Your task to perform on an android device: move an email to a new category in the gmail app Image 0: 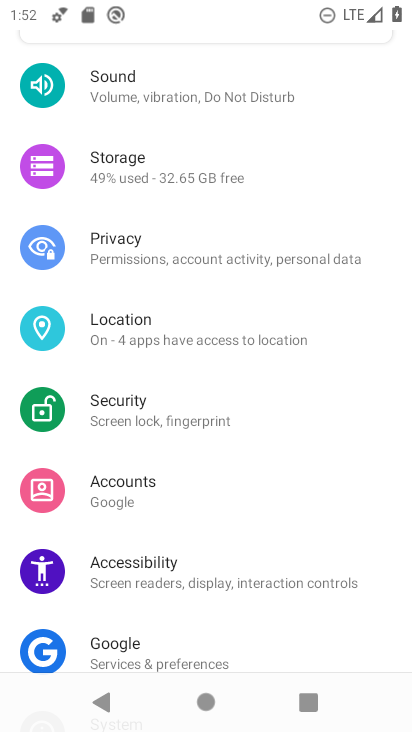
Step 0: press home button
Your task to perform on an android device: move an email to a new category in the gmail app Image 1: 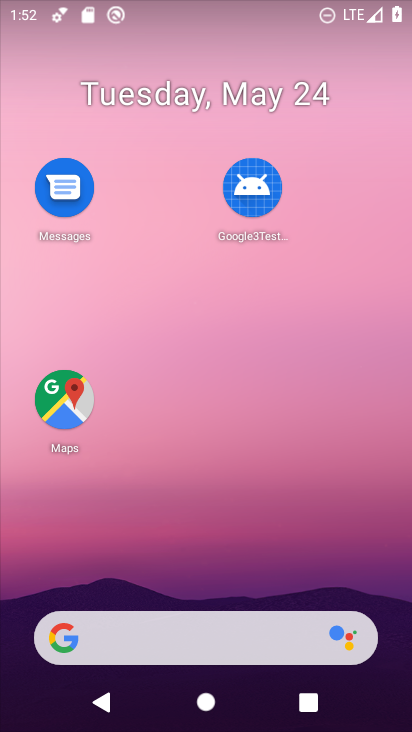
Step 1: drag from (203, 575) to (196, 1)
Your task to perform on an android device: move an email to a new category in the gmail app Image 2: 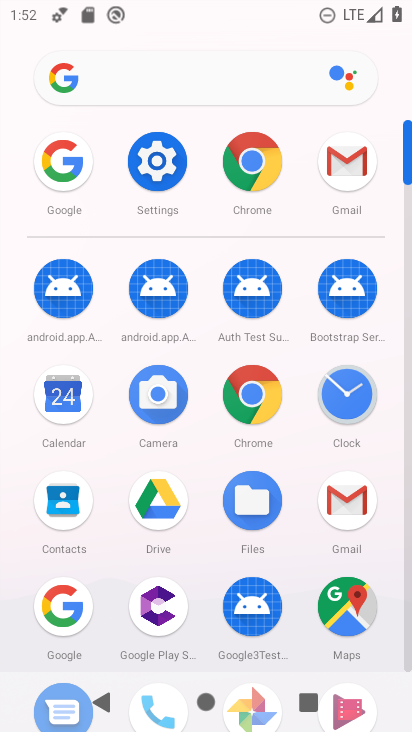
Step 2: click (335, 175)
Your task to perform on an android device: move an email to a new category in the gmail app Image 3: 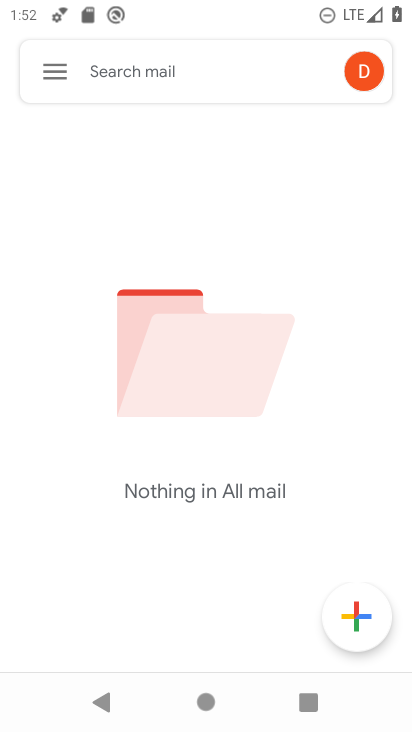
Step 3: click (52, 69)
Your task to perform on an android device: move an email to a new category in the gmail app Image 4: 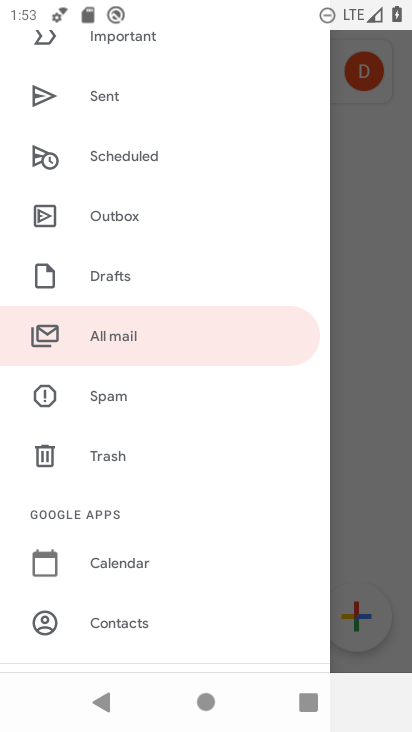
Step 4: click (121, 302)
Your task to perform on an android device: move an email to a new category in the gmail app Image 5: 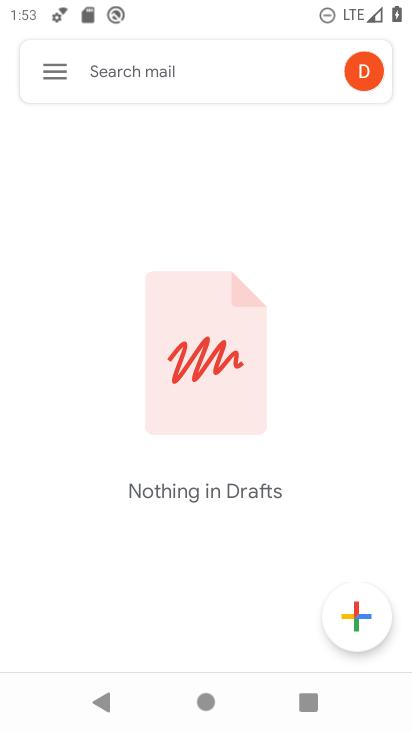
Step 5: click (44, 58)
Your task to perform on an android device: move an email to a new category in the gmail app Image 6: 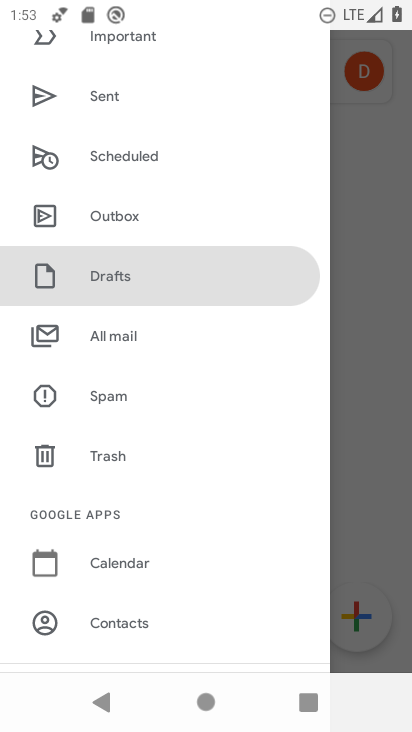
Step 6: click (99, 345)
Your task to perform on an android device: move an email to a new category in the gmail app Image 7: 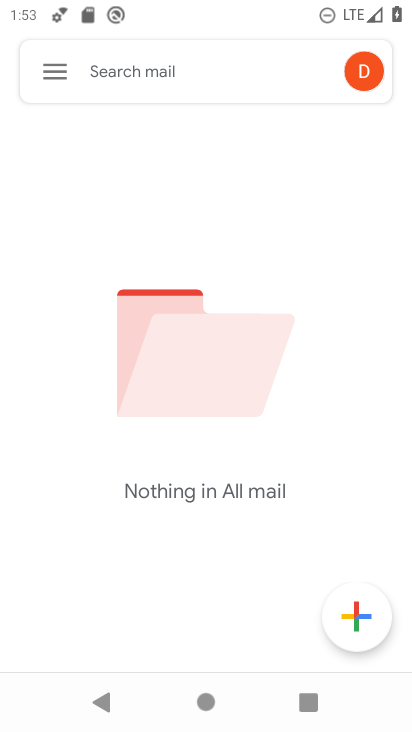
Step 7: task complete